Your task to perform on an android device: toggle improve location accuracy Image 0: 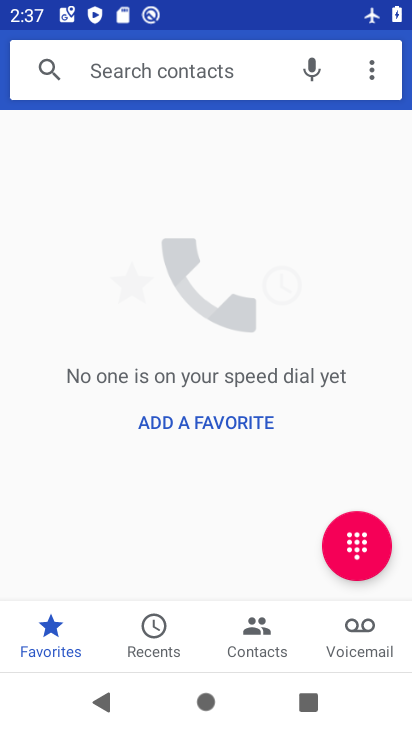
Step 0: press back button
Your task to perform on an android device: toggle improve location accuracy Image 1: 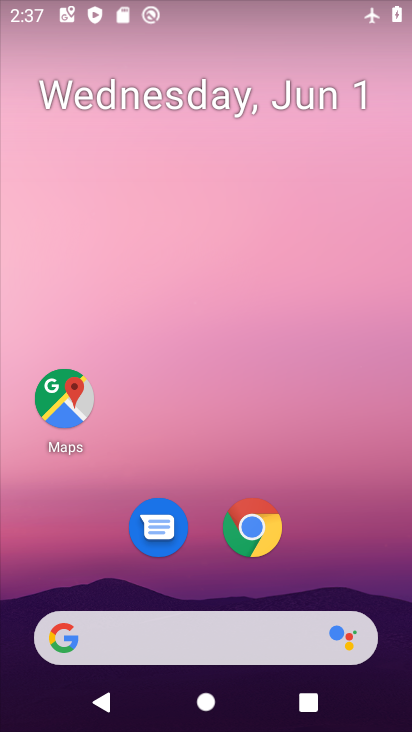
Step 1: drag from (327, 551) to (257, 43)
Your task to perform on an android device: toggle improve location accuracy Image 2: 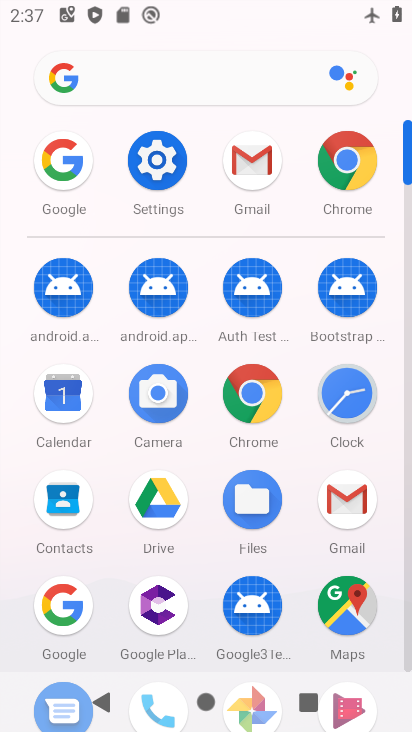
Step 2: click (156, 162)
Your task to perform on an android device: toggle improve location accuracy Image 3: 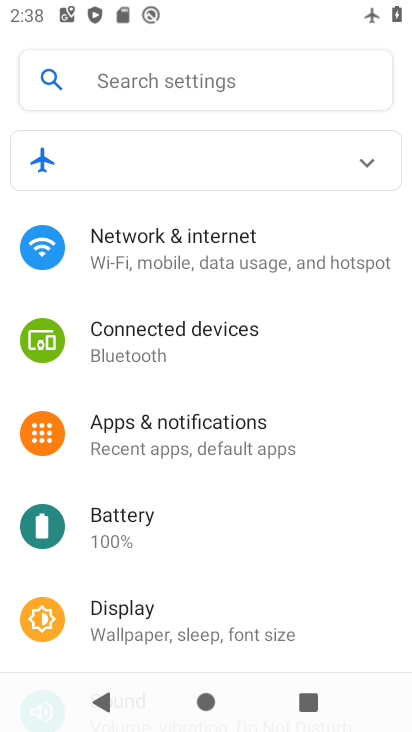
Step 3: drag from (191, 525) to (179, 425)
Your task to perform on an android device: toggle improve location accuracy Image 4: 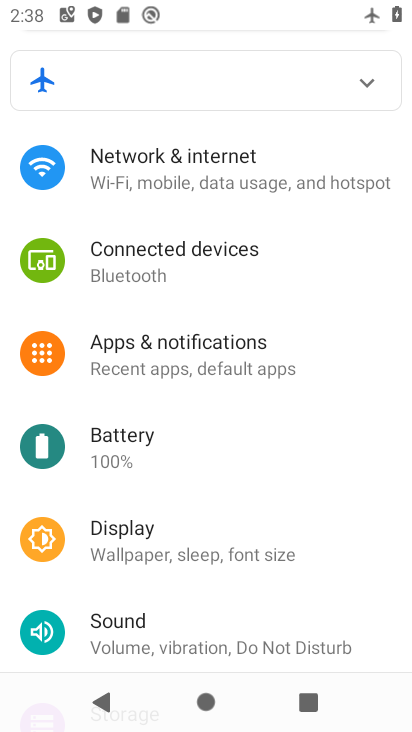
Step 4: drag from (180, 496) to (193, 368)
Your task to perform on an android device: toggle improve location accuracy Image 5: 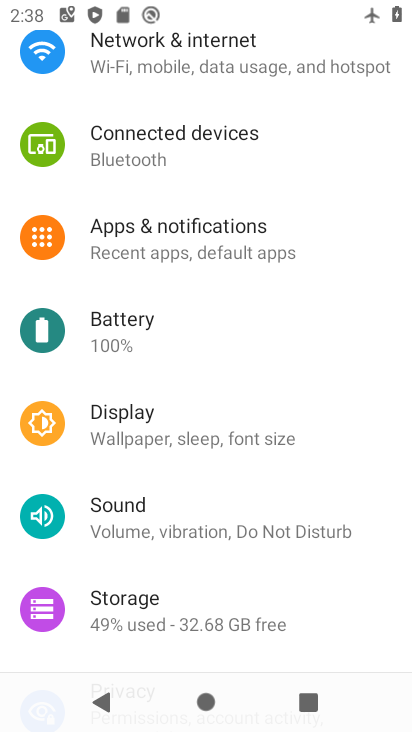
Step 5: drag from (178, 480) to (169, 365)
Your task to perform on an android device: toggle improve location accuracy Image 6: 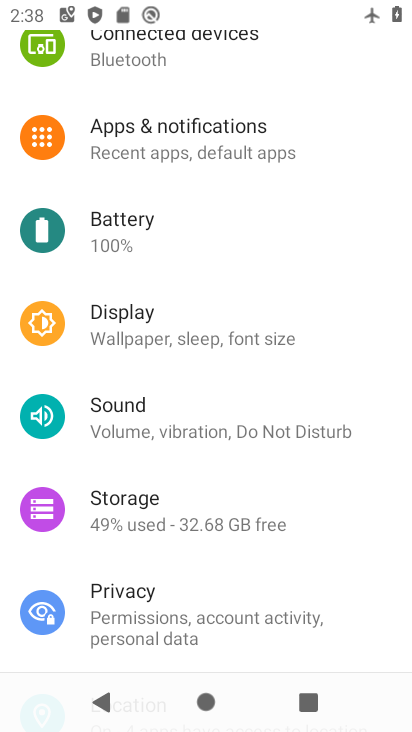
Step 6: drag from (199, 479) to (139, 338)
Your task to perform on an android device: toggle improve location accuracy Image 7: 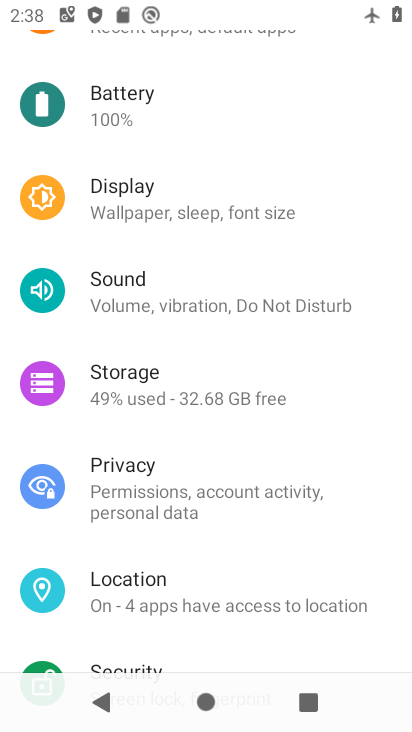
Step 7: click (173, 594)
Your task to perform on an android device: toggle improve location accuracy Image 8: 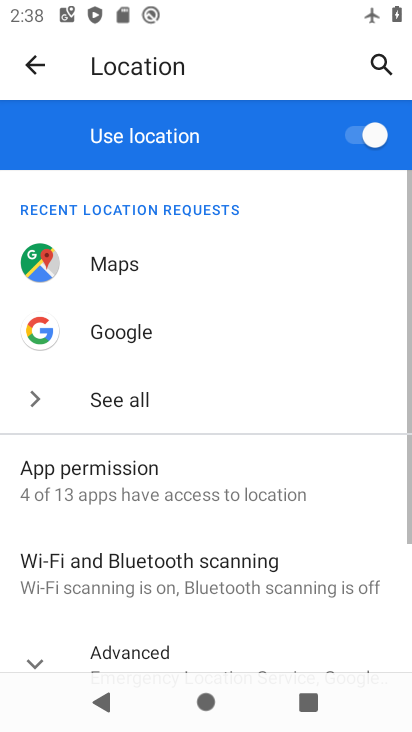
Step 8: click (351, 130)
Your task to perform on an android device: toggle improve location accuracy Image 9: 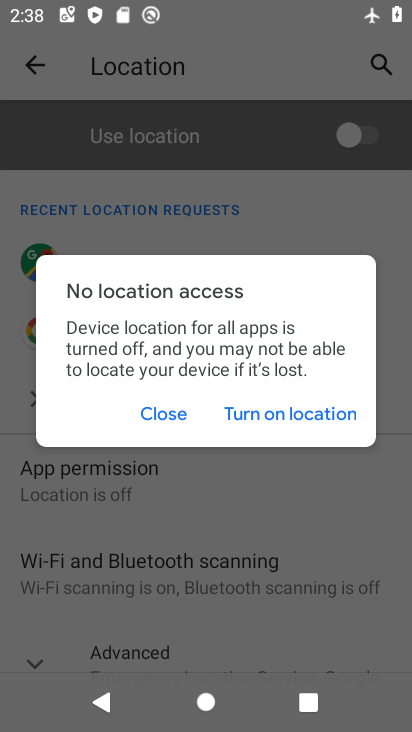
Step 9: click (157, 410)
Your task to perform on an android device: toggle improve location accuracy Image 10: 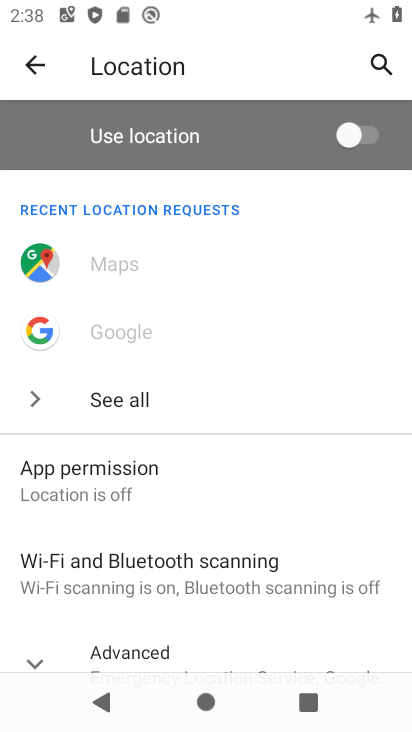
Step 10: task complete